Your task to perform on an android device: toggle pop-ups in chrome Image 0: 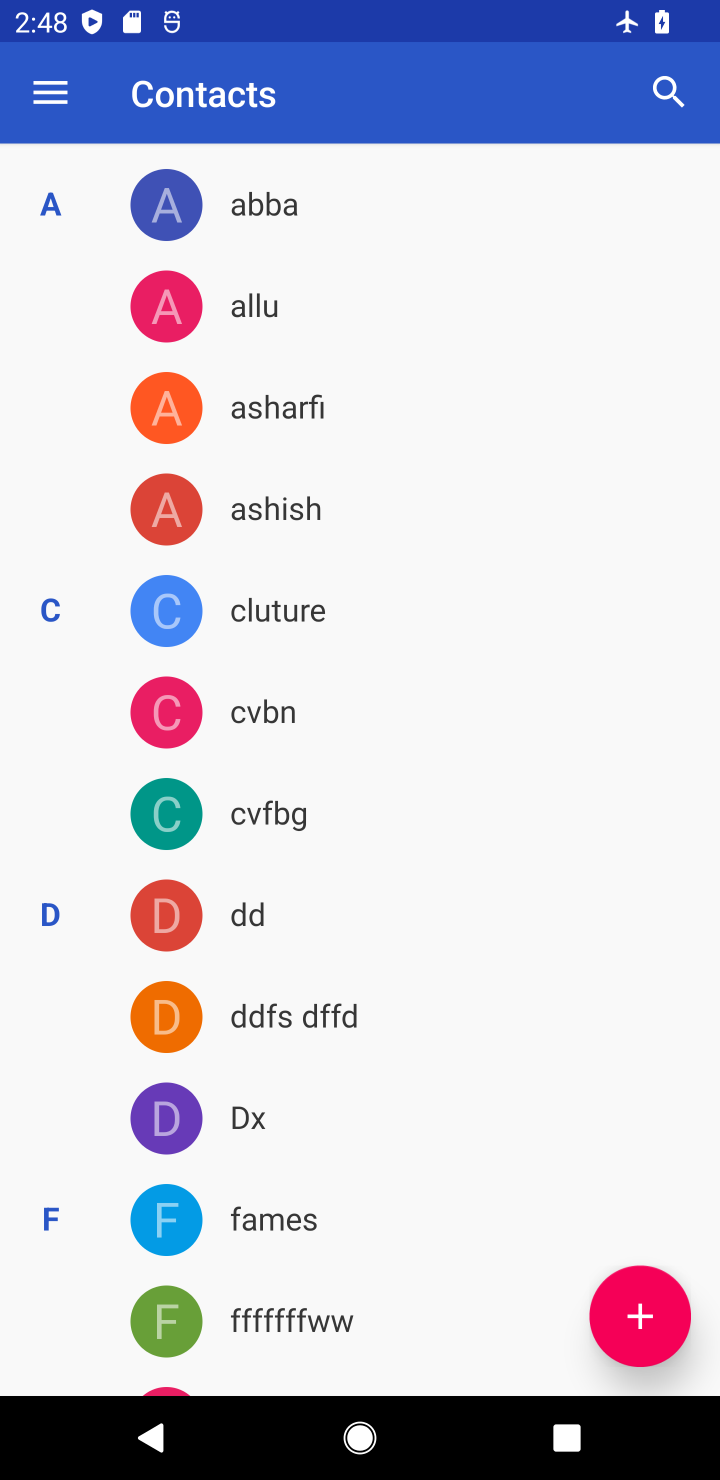
Step 0: press home button
Your task to perform on an android device: toggle pop-ups in chrome Image 1: 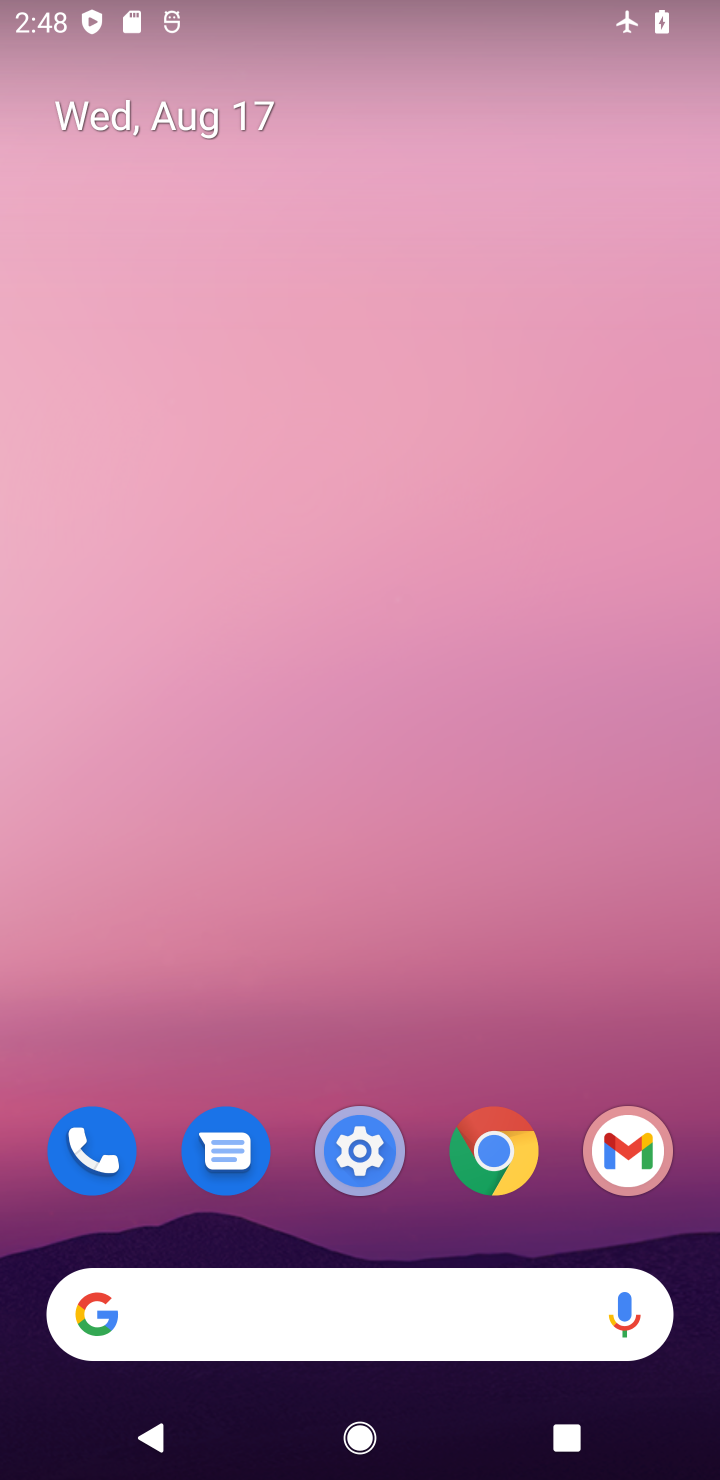
Step 1: drag from (293, 1335) to (349, 405)
Your task to perform on an android device: toggle pop-ups in chrome Image 2: 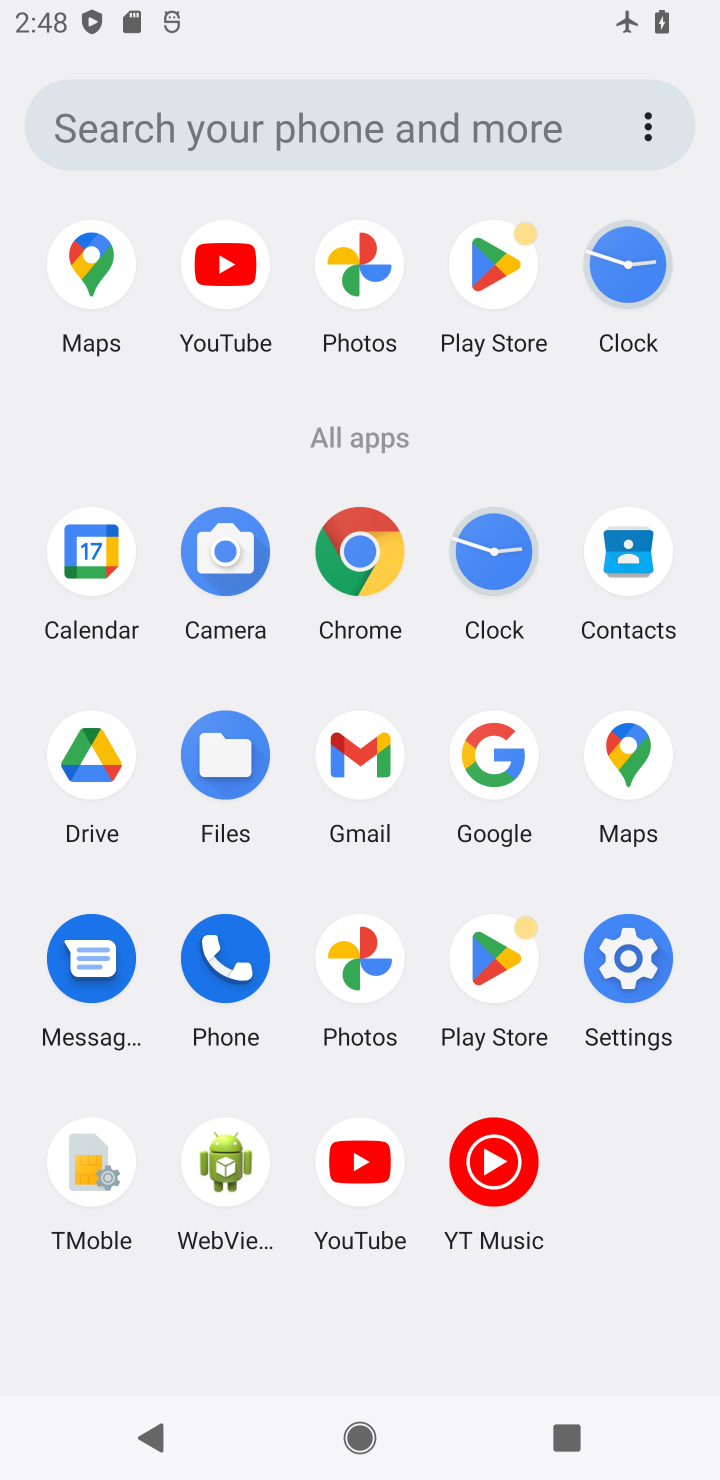
Step 2: click (365, 566)
Your task to perform on an android device: toggle pop-ups in chrome Image 3: 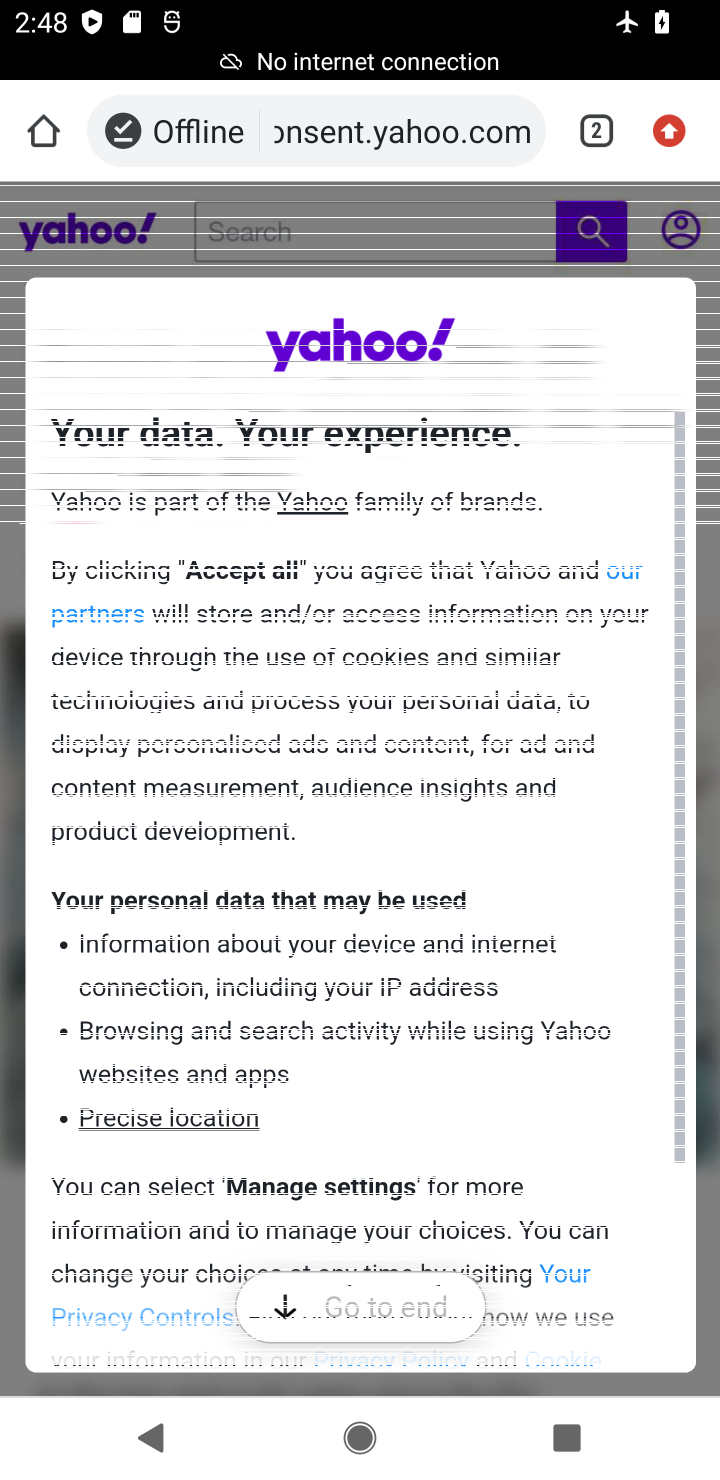
Step 3: click (651, 136)
Your task to perform on an android device: toggle pop-ups in chrome Image 4: 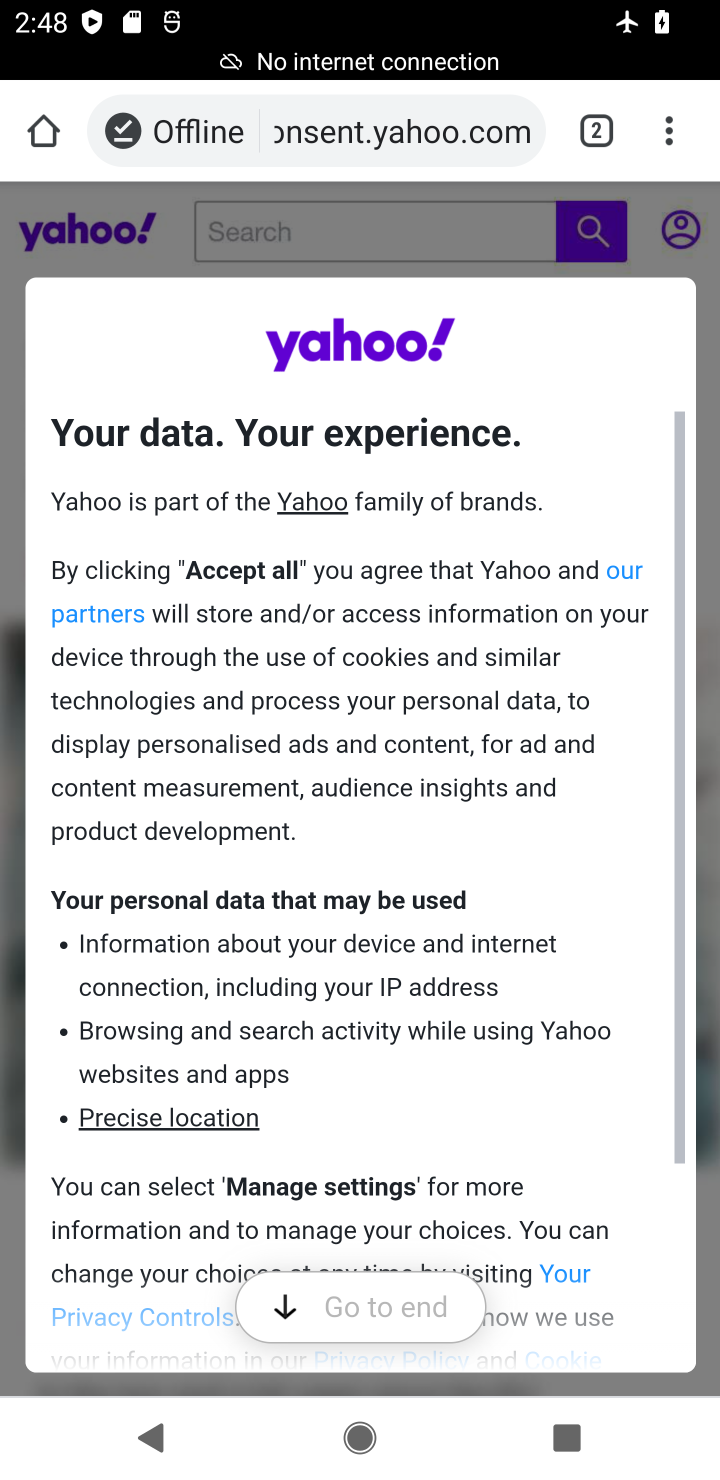
Step 4: click (670, 130)
Your task to perform on an android device: toggle pop-ups in chrome Image 5: 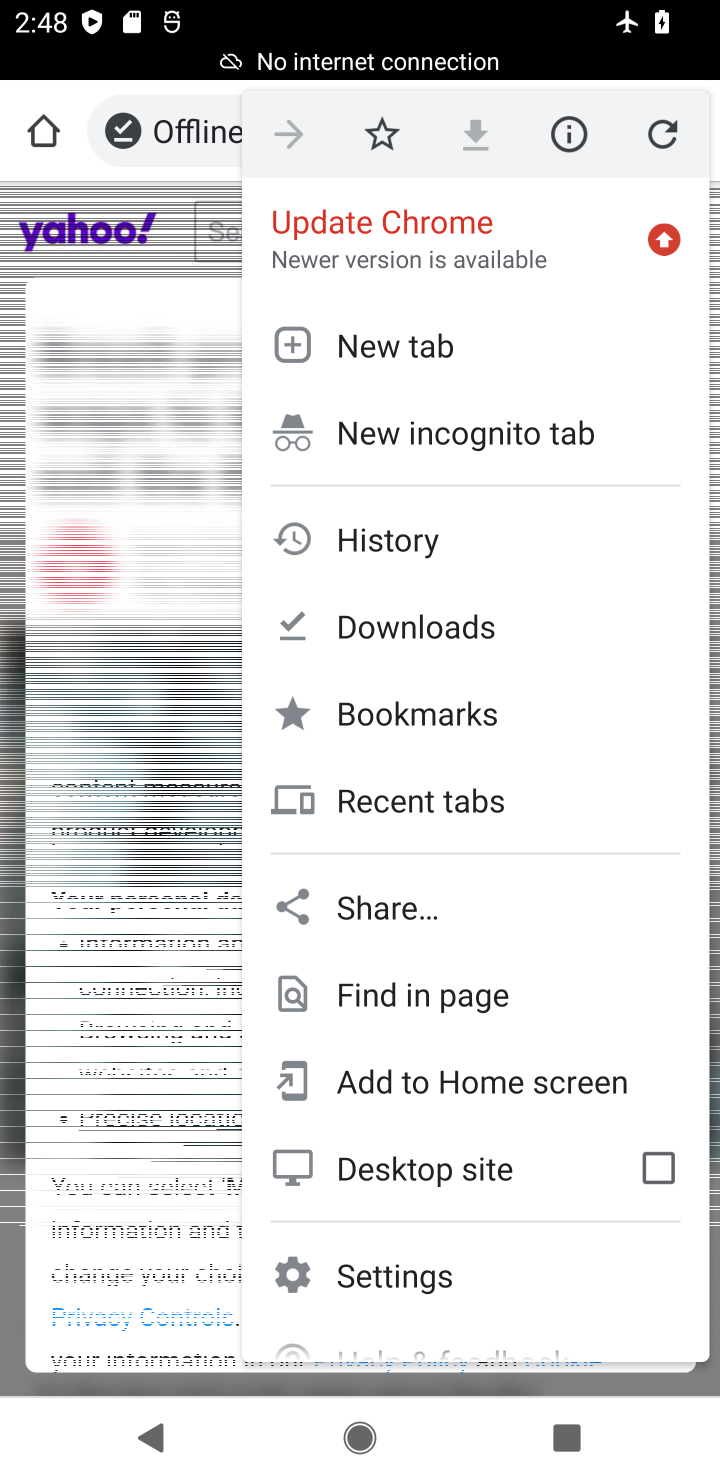
Step 5: click (405, 1281)
Your task to perform on an android device: toggle pop-ups in chrome Image 6: 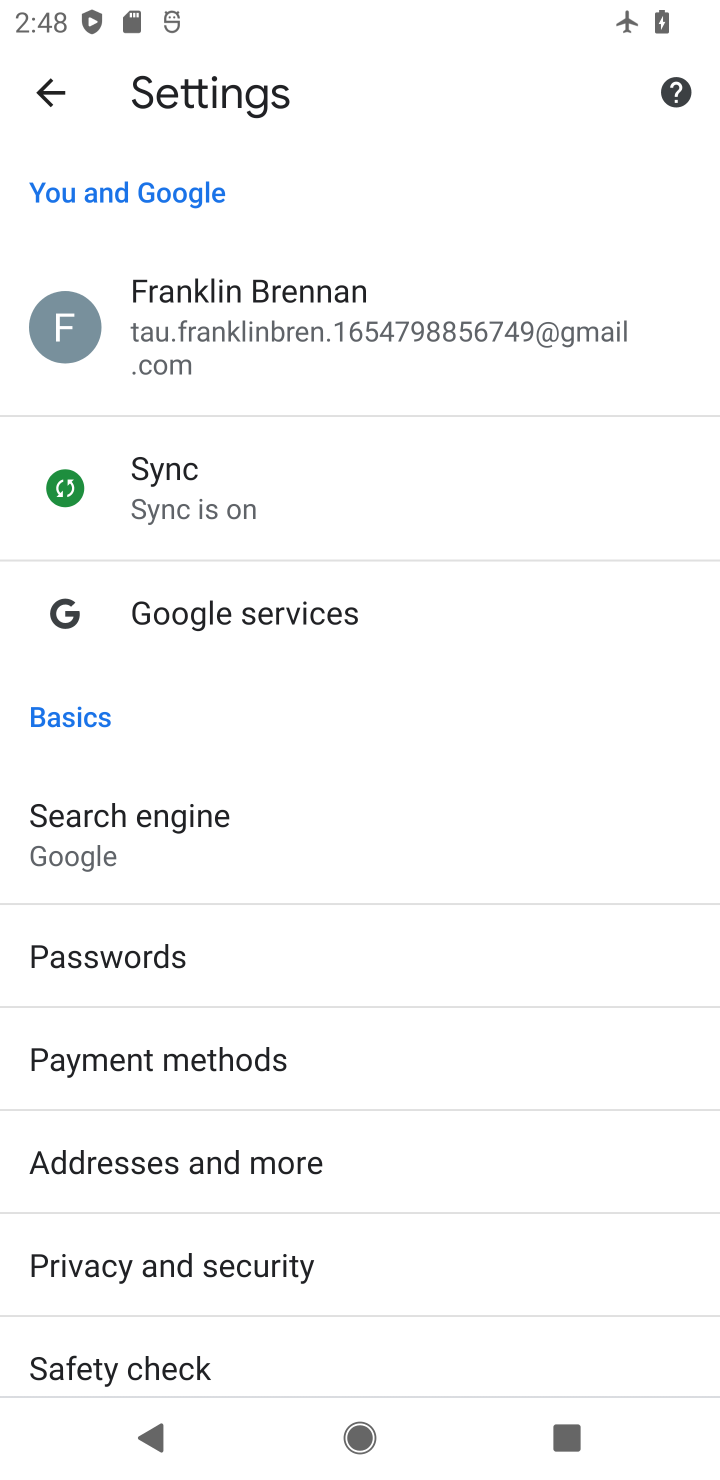
Step 6: drag from (317, 1149) to (446, 319)
Your task to perform on an android device: toggle pop-ups in chrome Image 7: 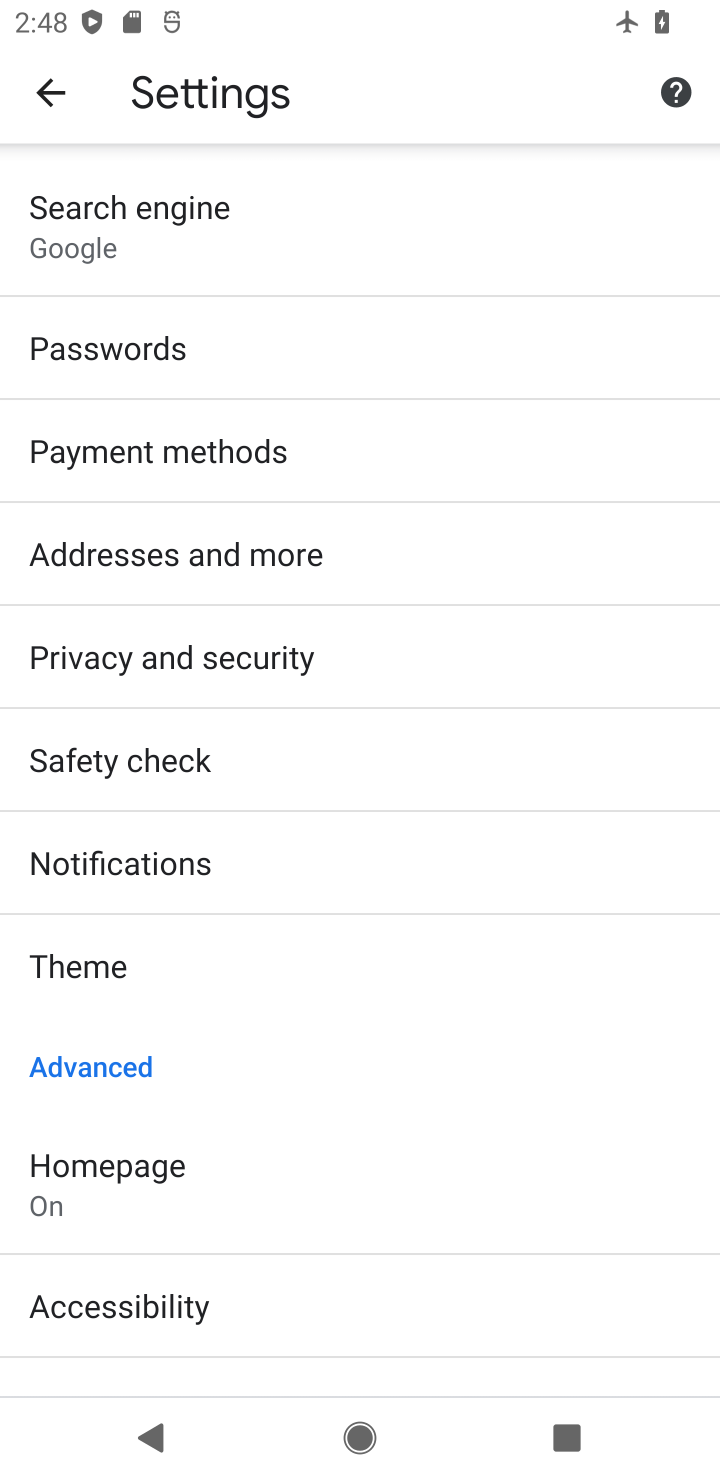
Step 7: drag from (231, 1173) to (400, 450)
Your task to perform on an android device: toggle pop-ups in chrome Image 8: 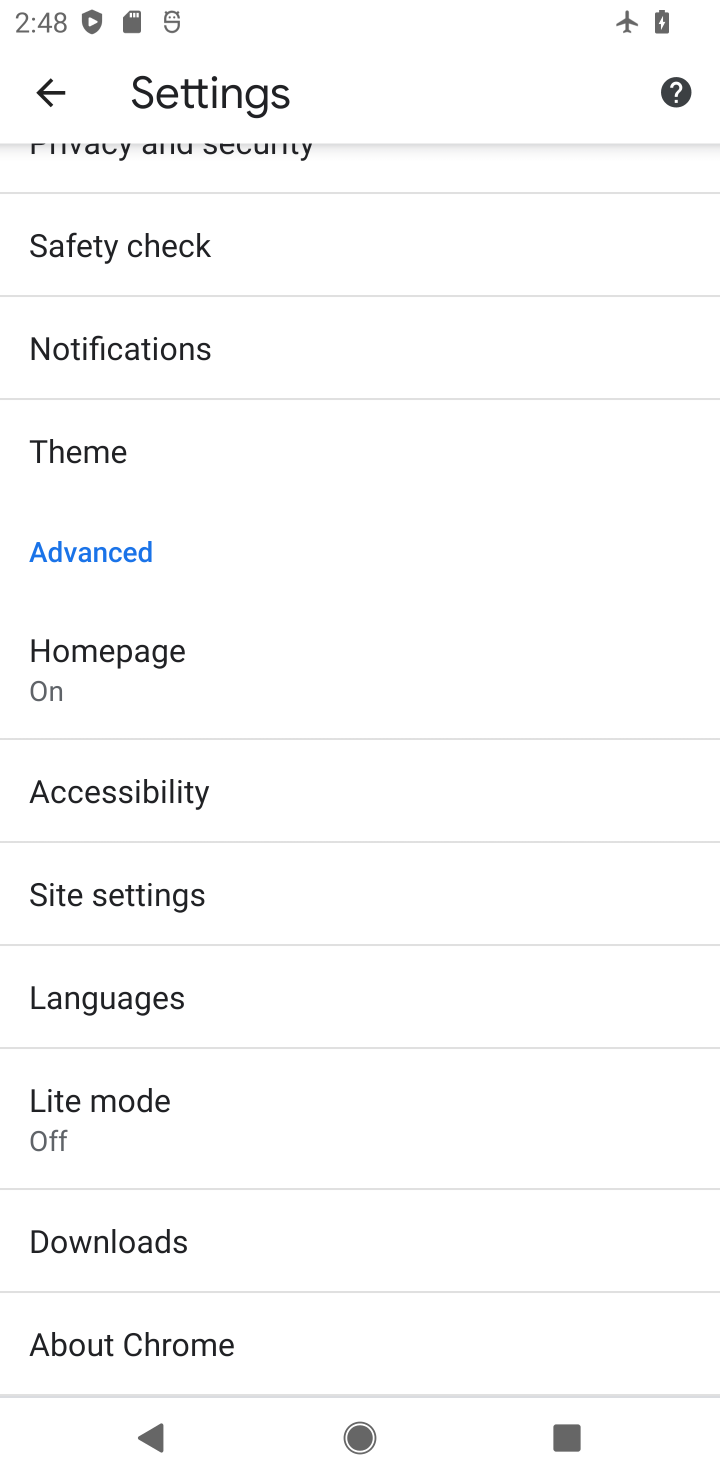
Step 8: click (186, 884)
Your task to perform on an android device: toggle pop-ups in chrome Image 9: 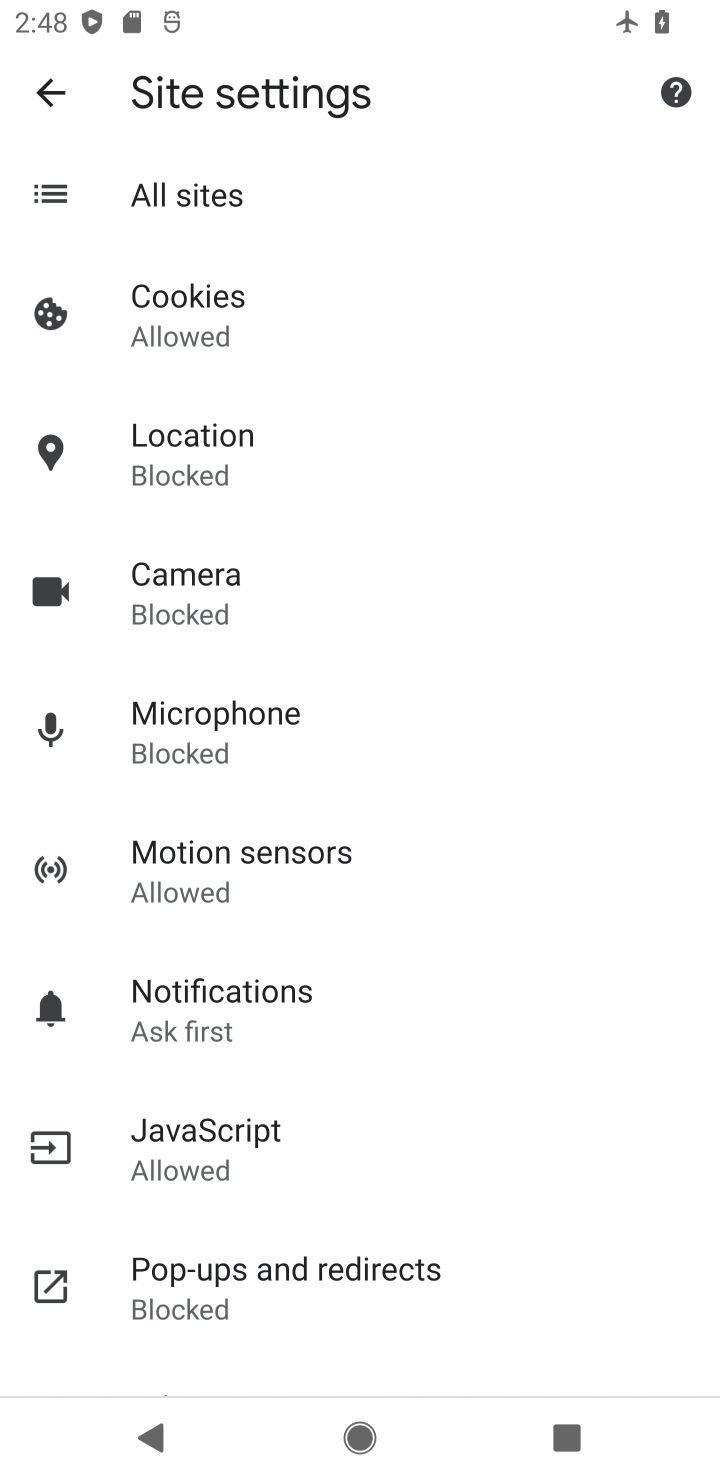
Step 9: click (256, 1250)
Your task to perform on an android device: toggle pop-ups in chrome Image 10: 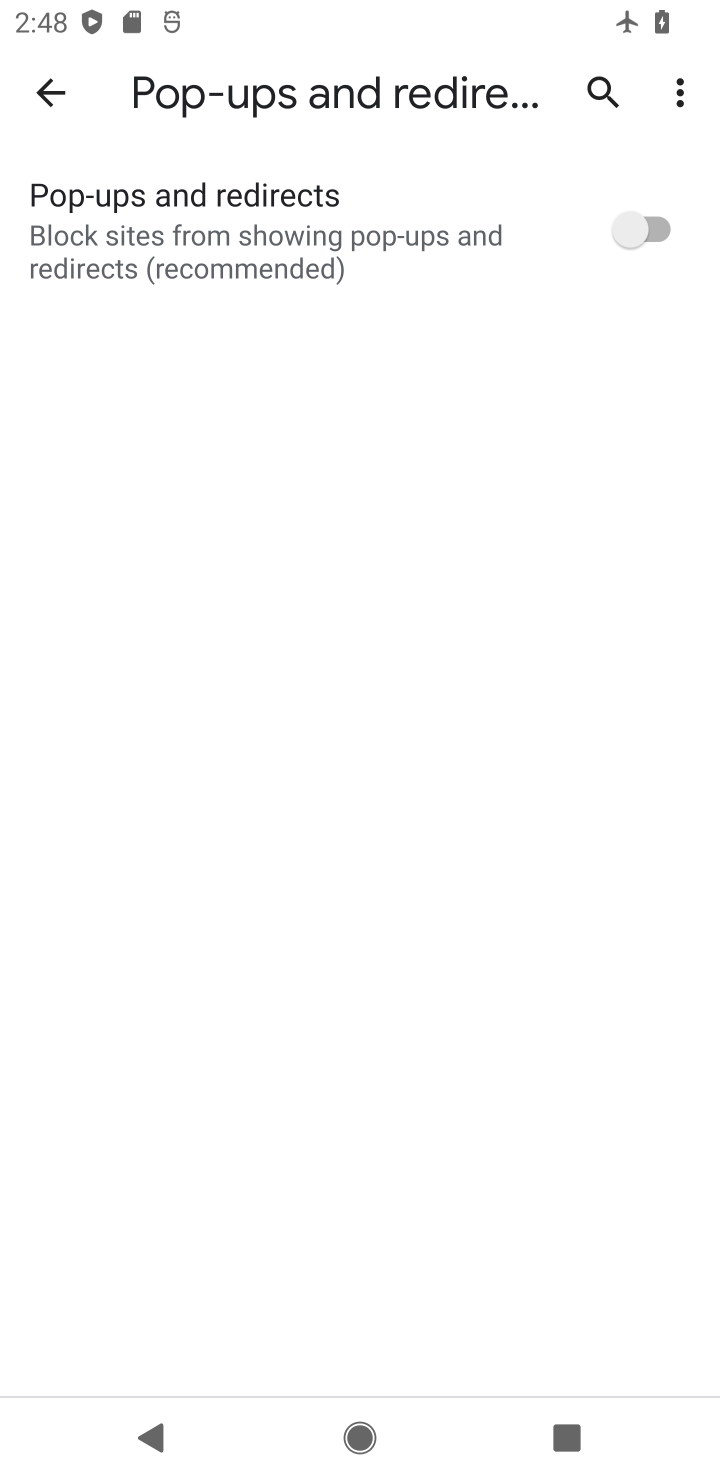
Step 10: click (643, 211)
Your task to perform on an android device: toggle pop-ups in chrome Image 11: 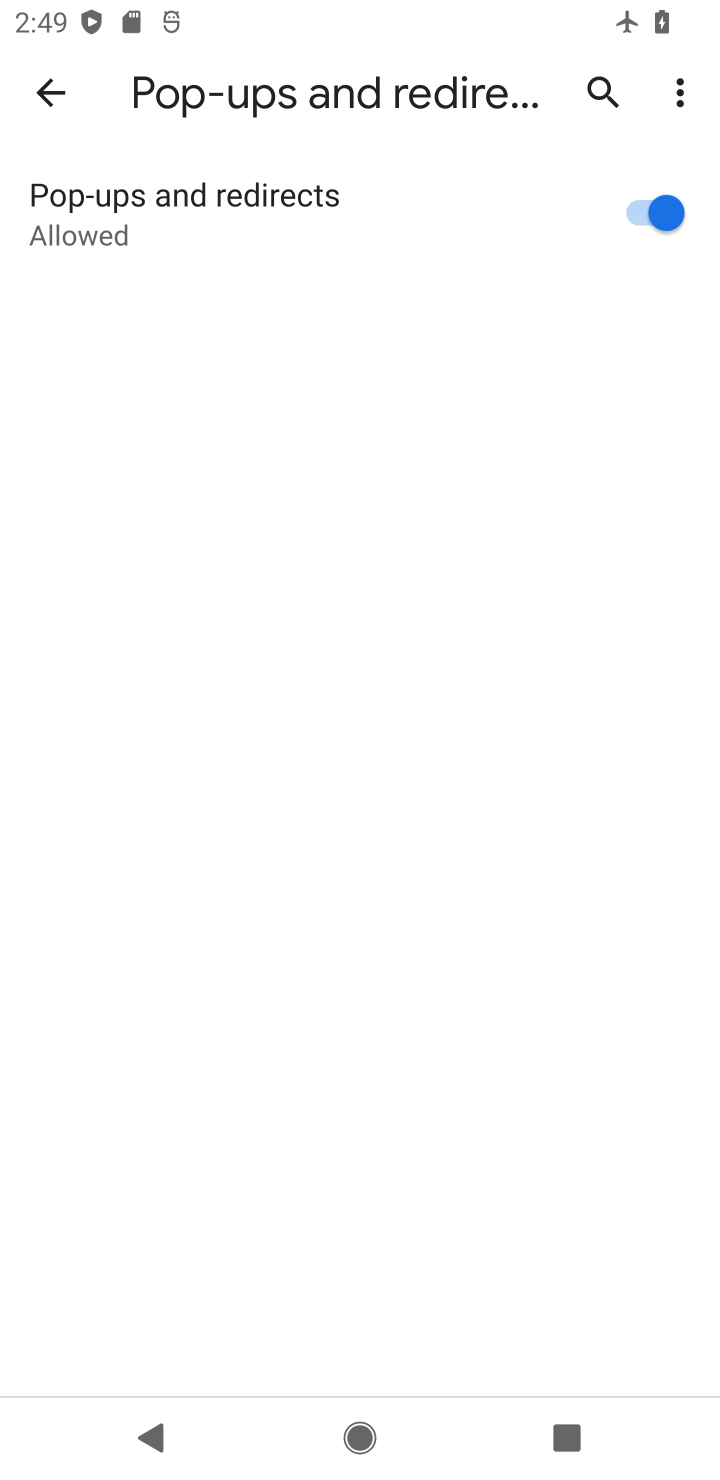
Step 11: task complete